Your task to perform on an android device: Clear the cart on newegg. Image 0: 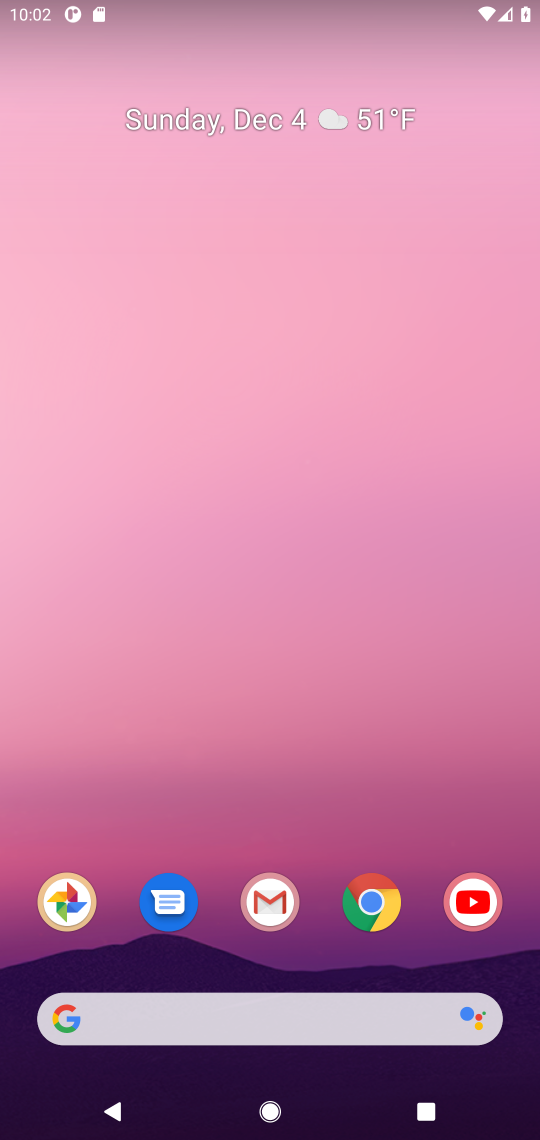
Step 0: click (371, 906)
Your task to perform on an android device: Clear the cart on newegg. Image 1: 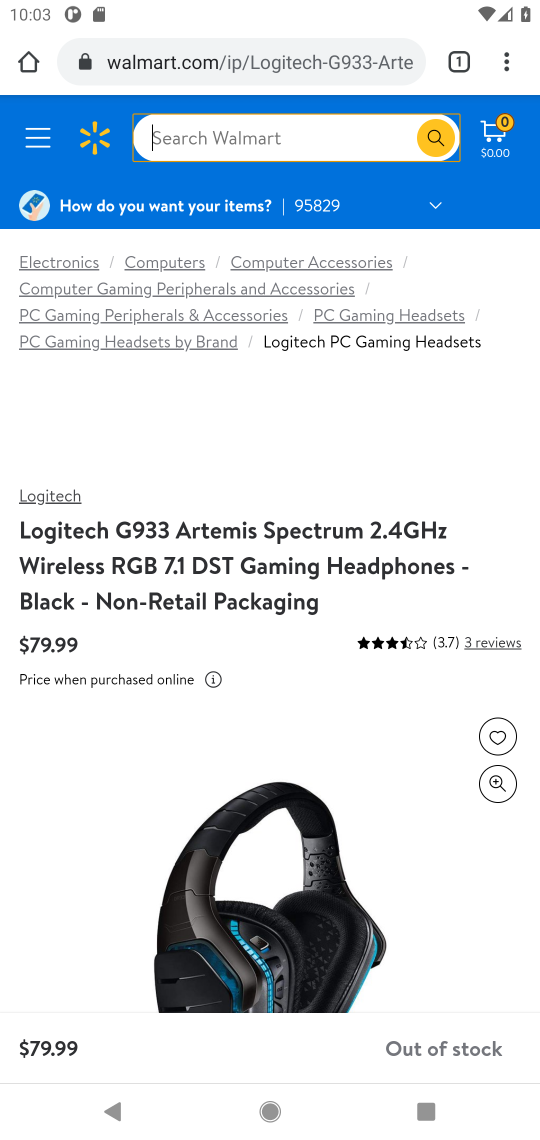
Step 1: click (318, 71)
Your task to perform on an android device: Clear the cart on newegg. Image 2: 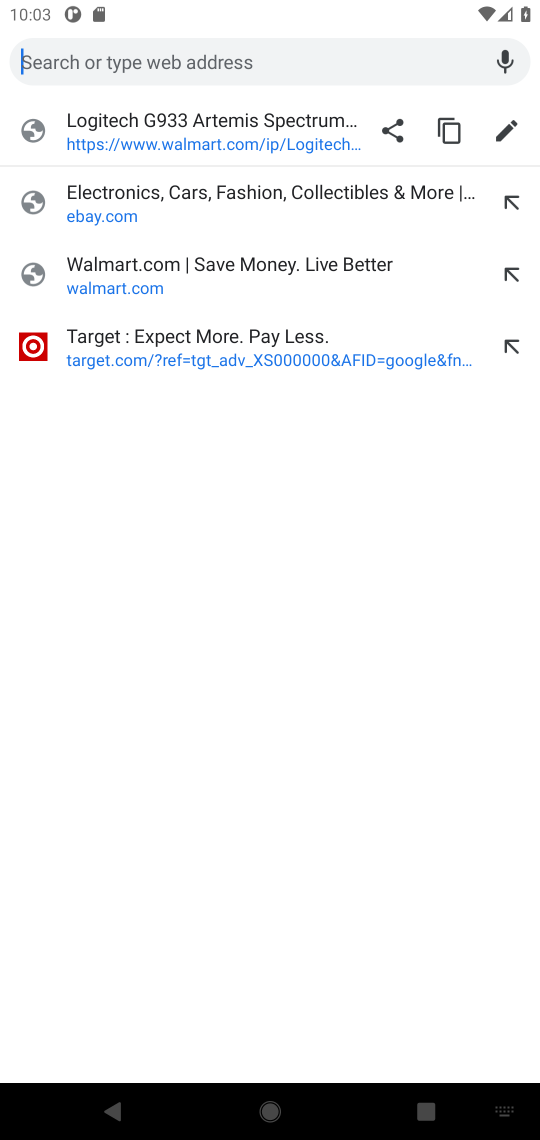
Step 2: type "newegg"
Your task to perform on an android device: Clear the cart on newegg. Image 3: 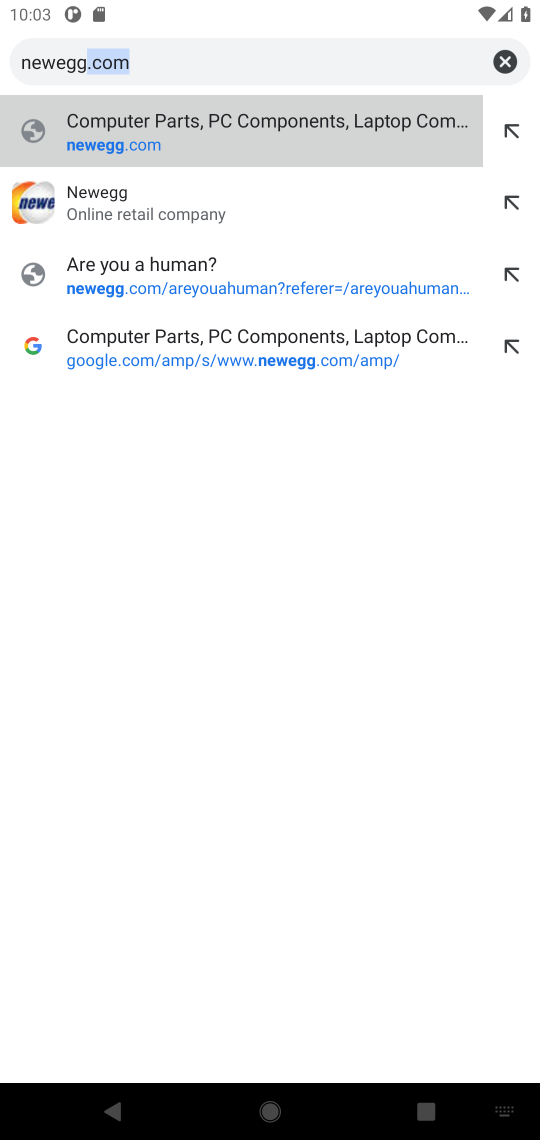
Step 3: click (200, 191)
Your task to perform on an android device: Clear the cart on newegg. Image 4: 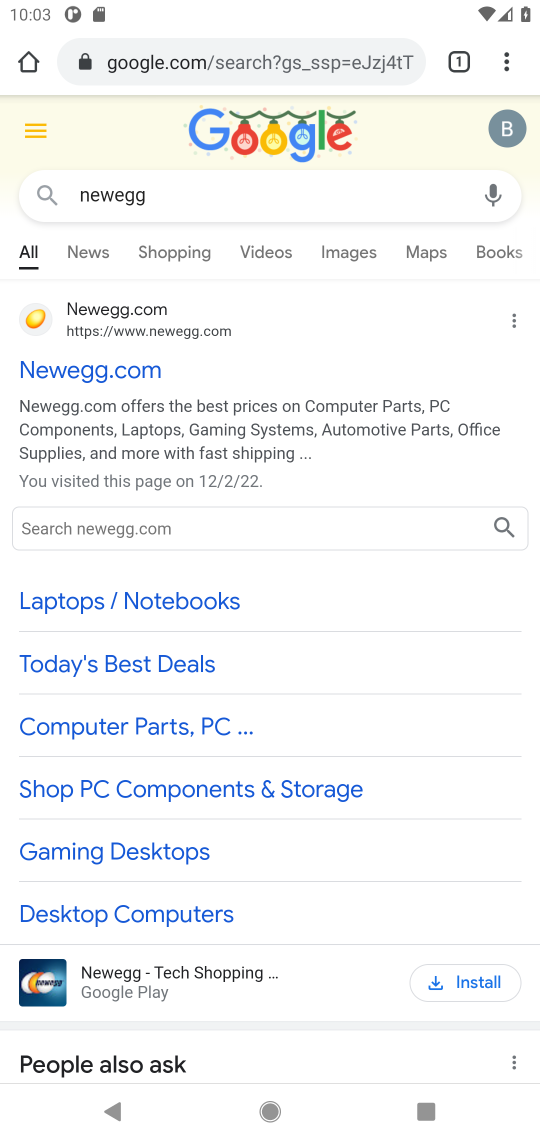
Step 4: click (134, 371)
Your task to perform on an android device: Clear the cart on newegg. Image 5: 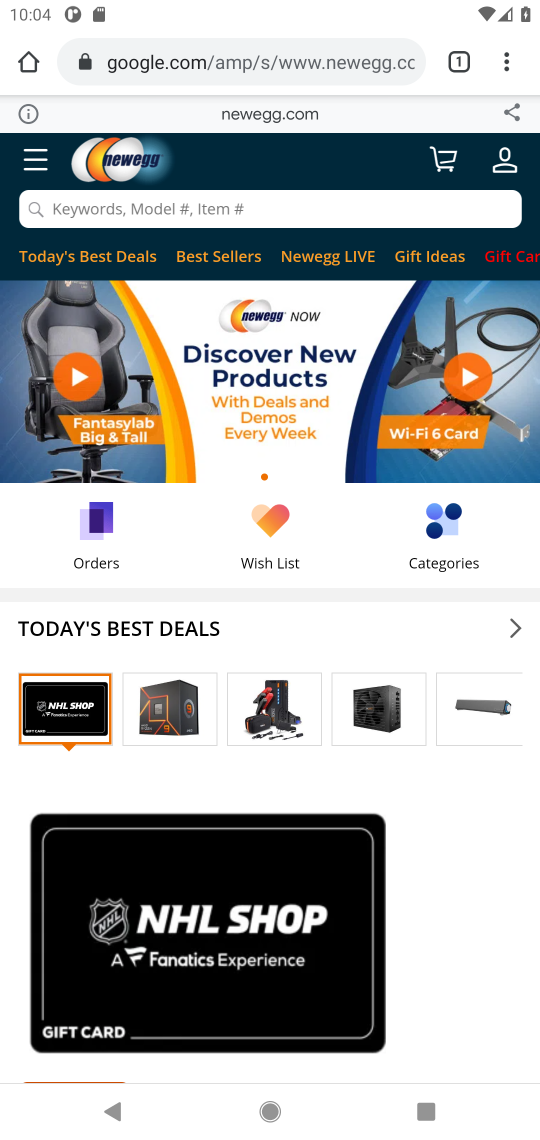
Step 5: click (443, 156)
Your task to perform on an android device: Clear the cart on newegg. Image 6: 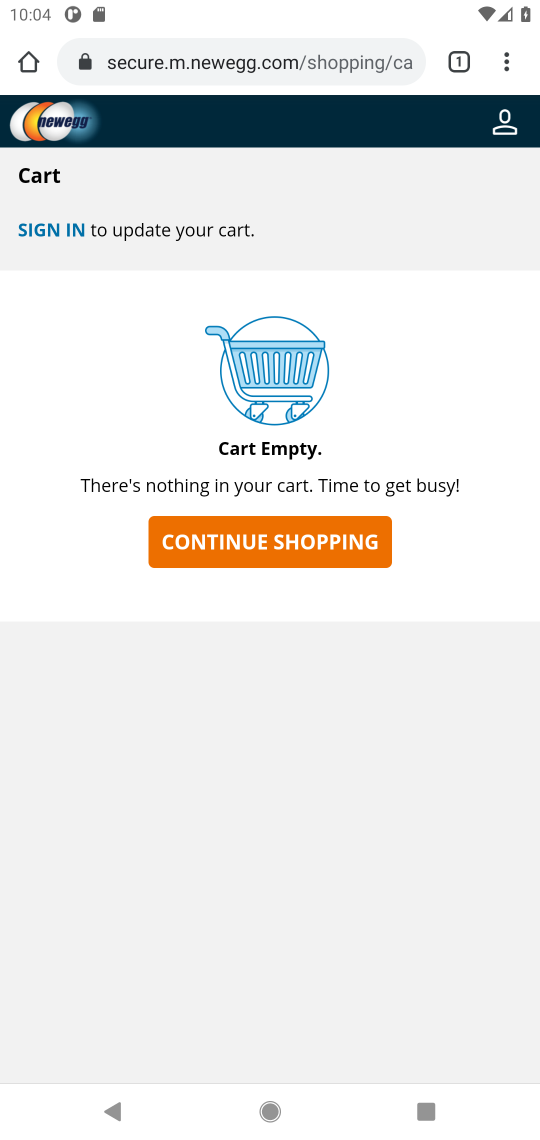
Step 6: task complete